Your task to perform on an android device: turn on priority inbox in the gmail app Image 0: 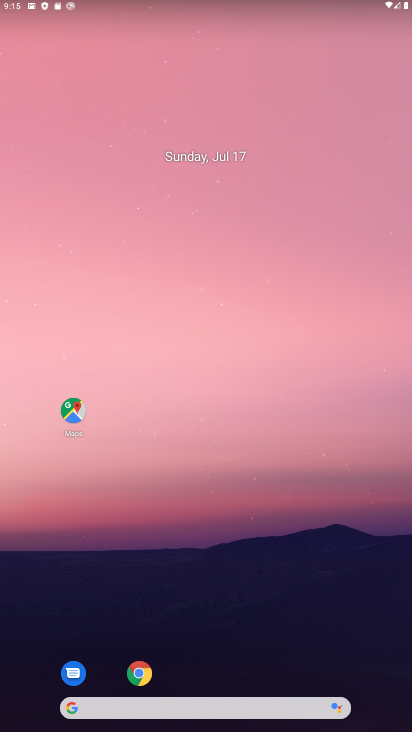
Step 0: press home button
Your task to perform on an android device: turn on priority inbox in the gmail app Image 1: 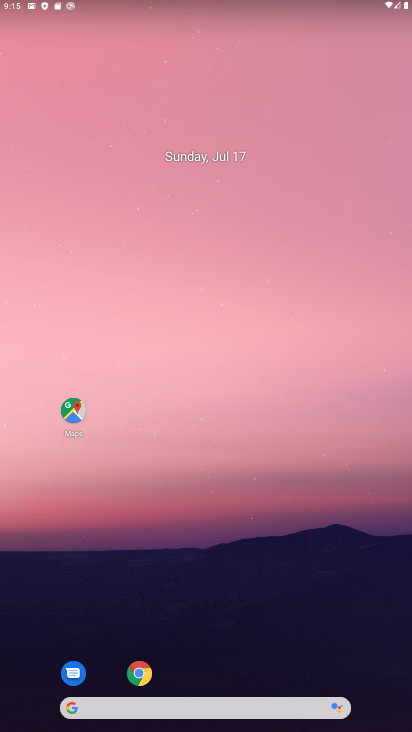
Step 1: drag from (205, 574) to (151, 51)
Your task to perform on an android device: turn on priority inbox in the gmail app Image 2: 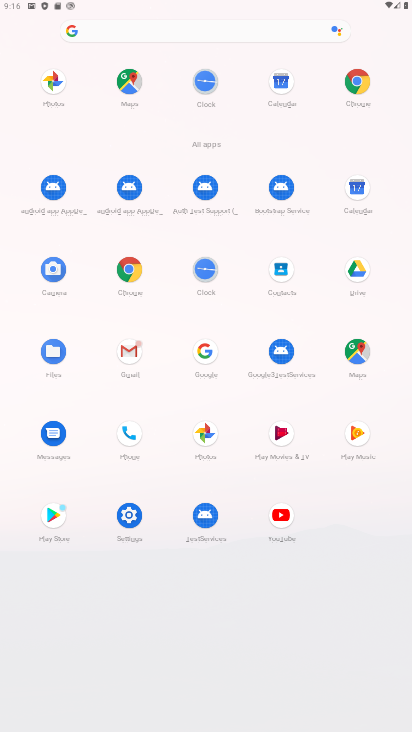
Step 2: click (128, 349)
Your task to perform on an android device: turn on priority inbox in the gmail app Image 3: 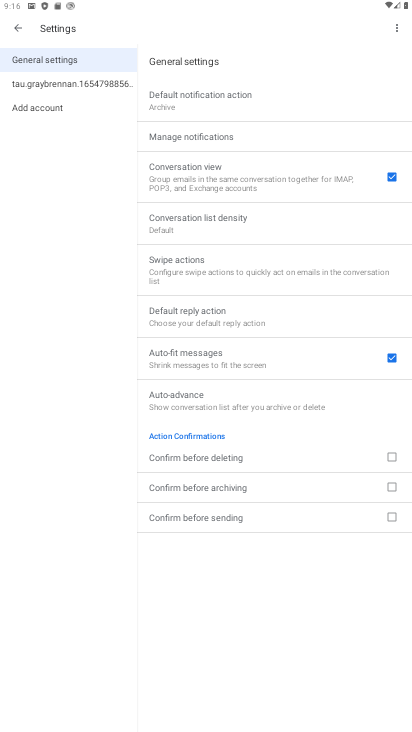
Step 3: click (76, 84)
Your task to perform on an android device: turn on priority inbox in the gmail app Image 4: 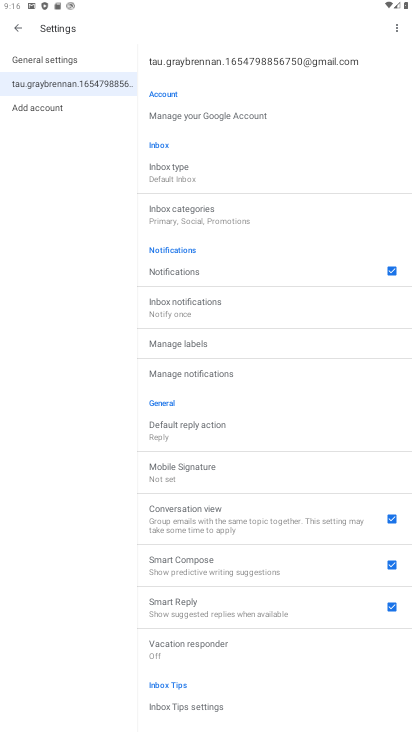
Step 4: click (167, 164)
Your task to perform on an android device: turn on priority inbox in the gmail app Image 5: 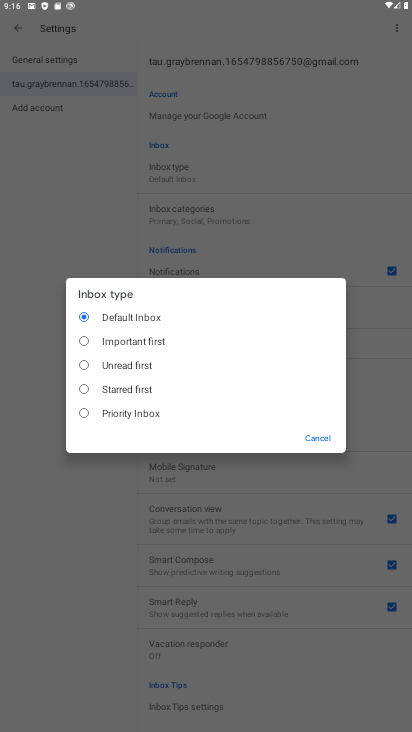
Step 5: click (86, 413)
Your task to perform on an android device: turn on priority inbox in the gmail app Image 6: 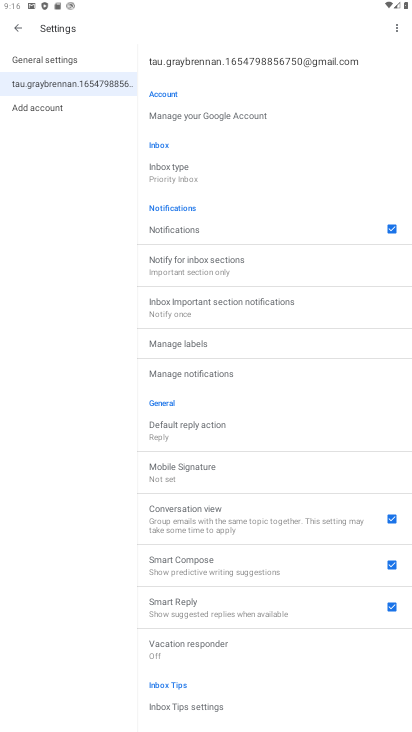
Step 6: task complete